Your task to perform on an android device: turn pop-ups off in chrome Image 0: 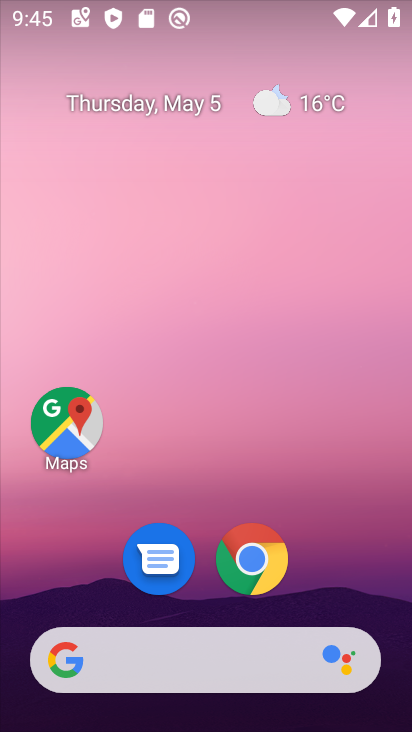
Step 0: click (242, 536)
Your task to perform on an android device: turn pop-ups off in chrome Image 1: 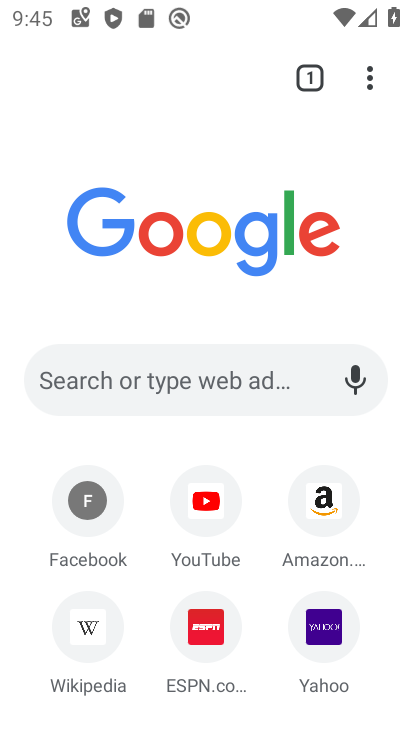
Step 1: click (376, 85)
Your task to perform on an android device: turn pop-ups off in chrome Image 2: 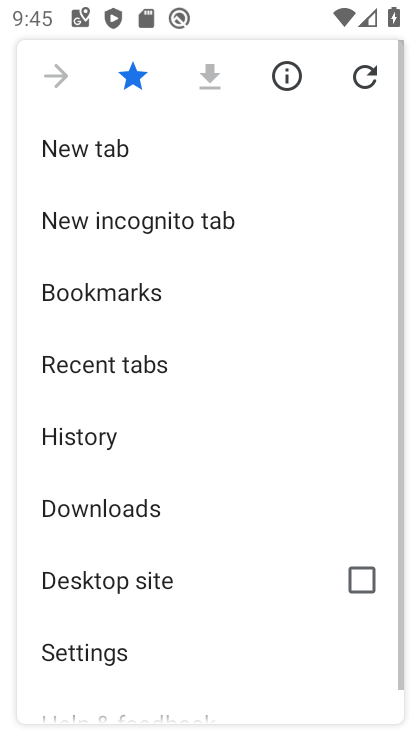
Step 2: drag from (135, 637) to (163, 477)
Your task to perform on an android device: turn pop-ups off in chrome Image 3: 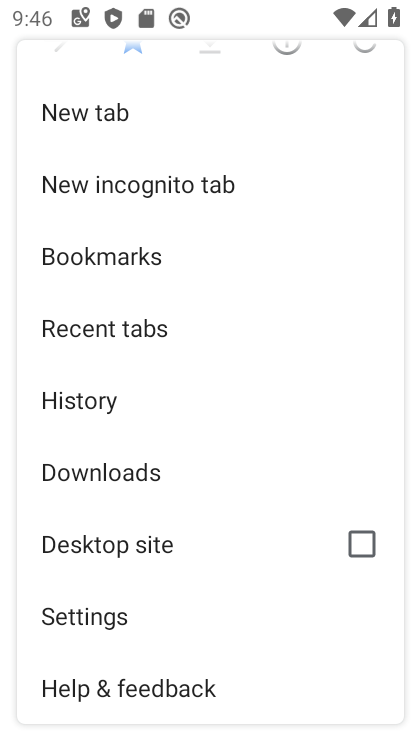
Step 3: click (67, 614)
Your task to perform on an android device: turn pop-ups off in chrome Image 4: 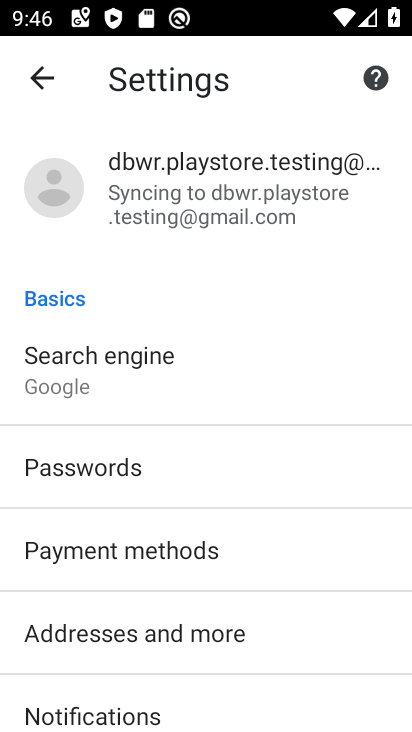
Step 4: drag from (116, 628) to (174, 257)
Your task to perform on an android device: turn pop-ups off in chrome Image 5: 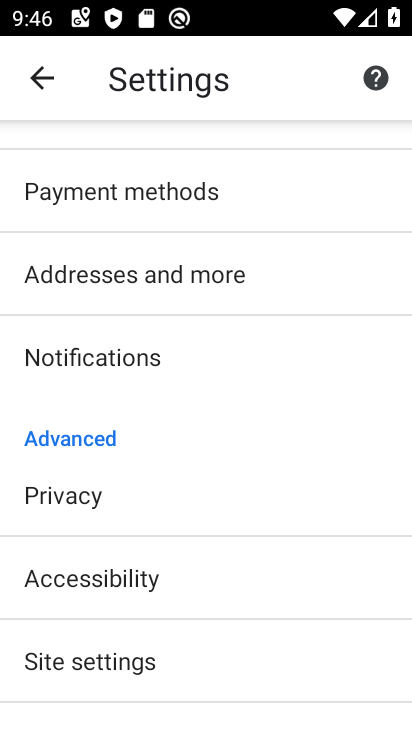
Step 5: click (56, 651)
Your task to perform on an android device: turn pop-ups off in chrome Image 6: 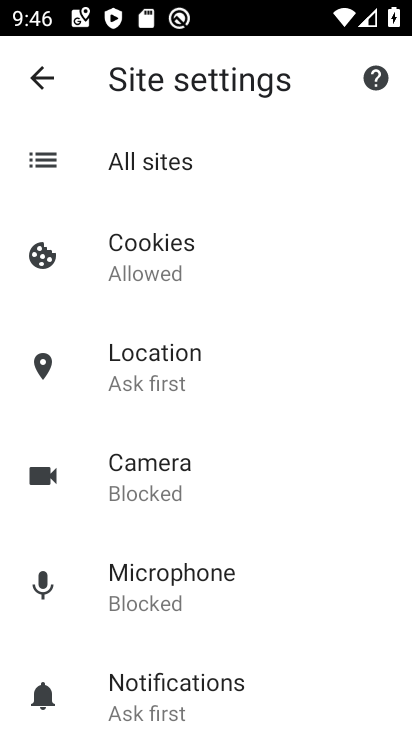
Step 6: drag from (170, 635) to (215, 245)
Your task to perform on an android device: turn pop-ups off in chrome Image 7: 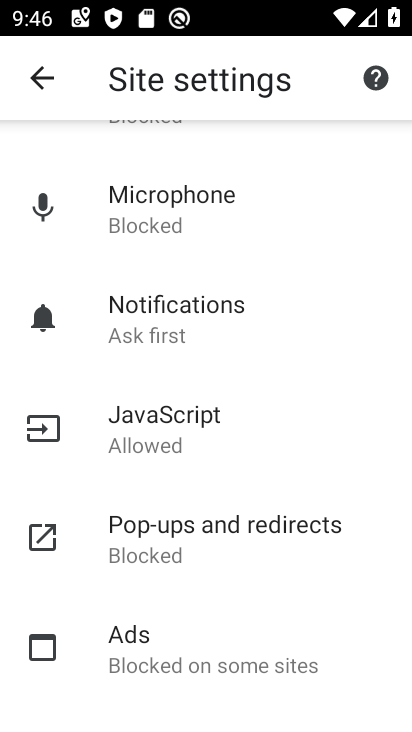
Step 7: click (153, 523)
Your task to perform on an android device: turn pop-ups off in chrome Image 8: 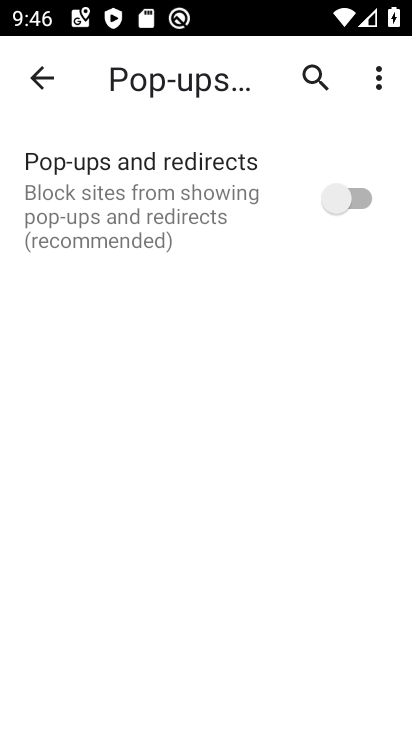
Step 8: task complete